Your task to perform on an android device: turn on improve location accuracy Image 0: 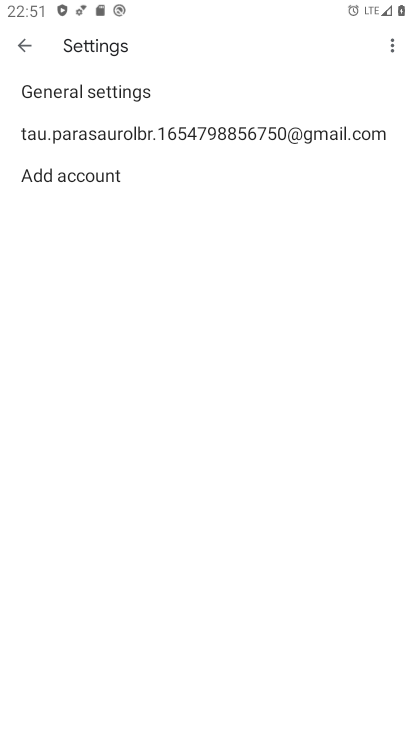
Step 0: click (25, 51)
Your task to perform on an android device: turn on improve location accuracy Image 1: 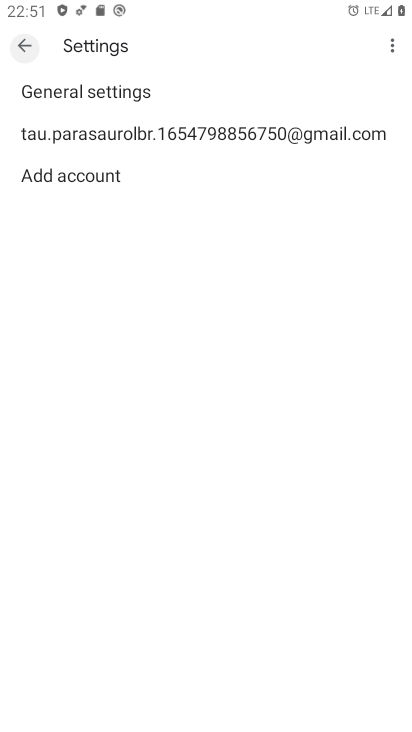
Step 1: click (25, 50)
Your task to perform on an android device: turn on improve location accuracy Image 2: 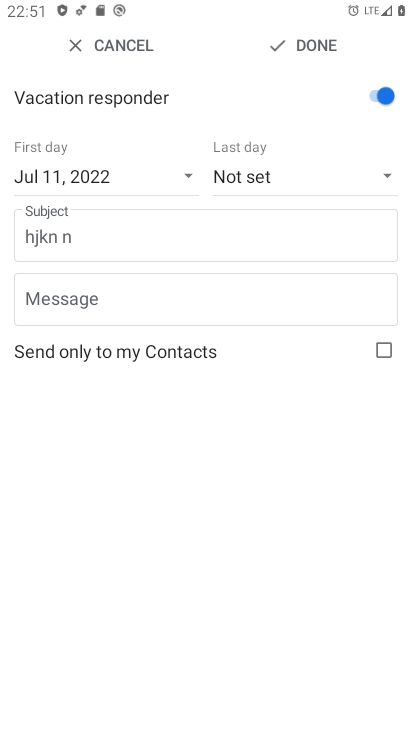
Step 2: press back button
Your task to perform on an android device: turn on improve location accuracy Image 3: 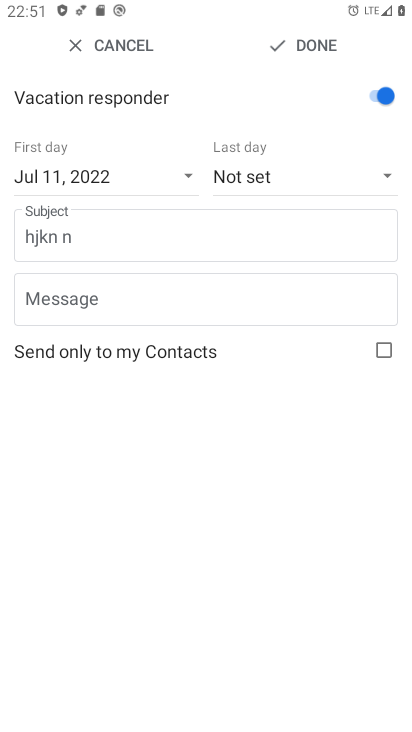
Step 3: press back button
Your task to perform on an android device: turn on improve location accuracy Image 4: 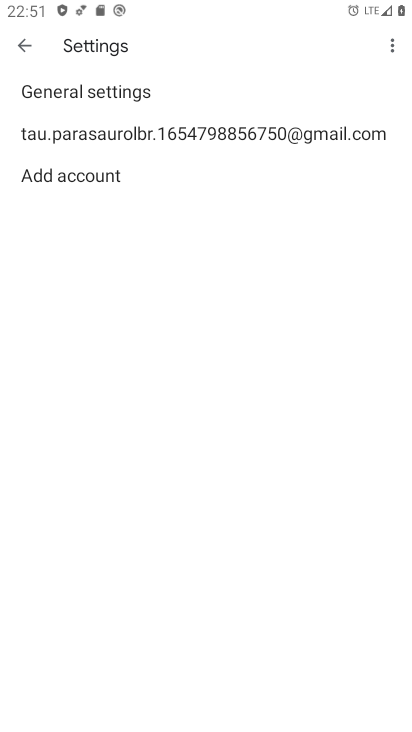
Step 4: press back button
Your task to perform on an android device: turn on improve location accuracy Image 5: 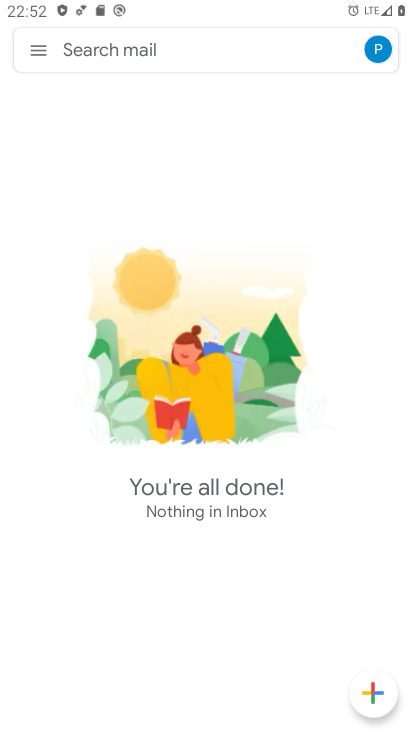
Step 5: press back button
Your task to perform on an android device: turn on improve location accuracy Image 6: 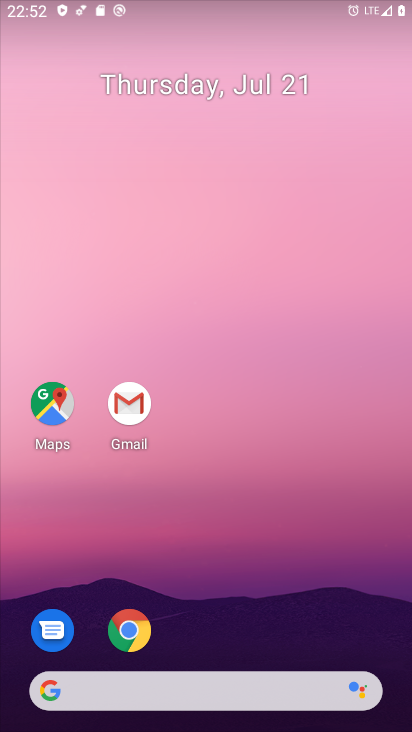
Step 6: drag from (204, 654) to (152, 194)
Your task to perform on an android device: turn on improve location accuracy Image 7: 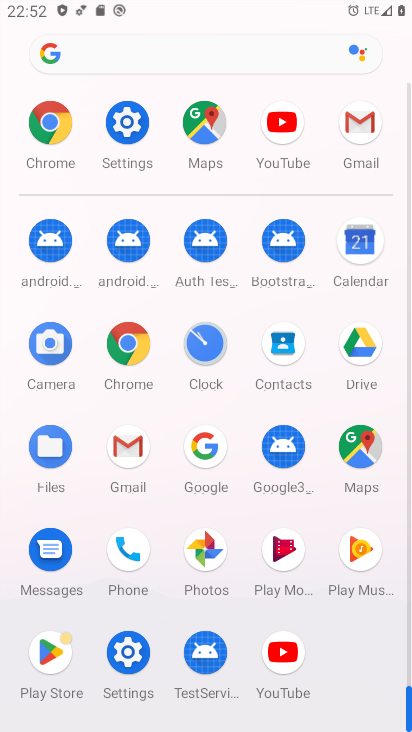
Step 7: click (117, 130)
Your task to perform on an android device: turn on improve location accuracy Image 8: 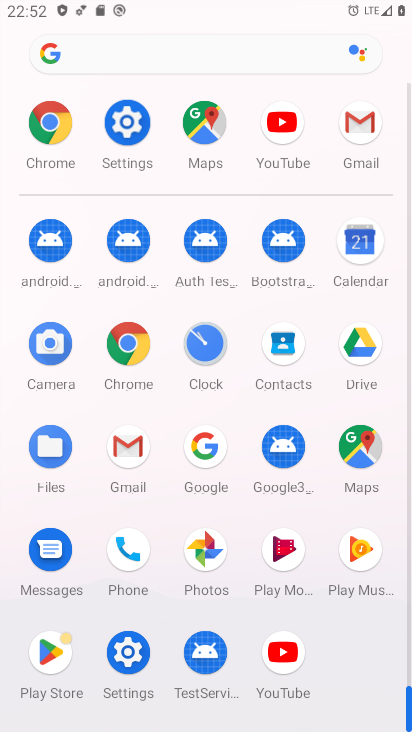
Step 8: click (129, 116)
Your task to perform on an android device: turn on improve location accuracy Image 9: 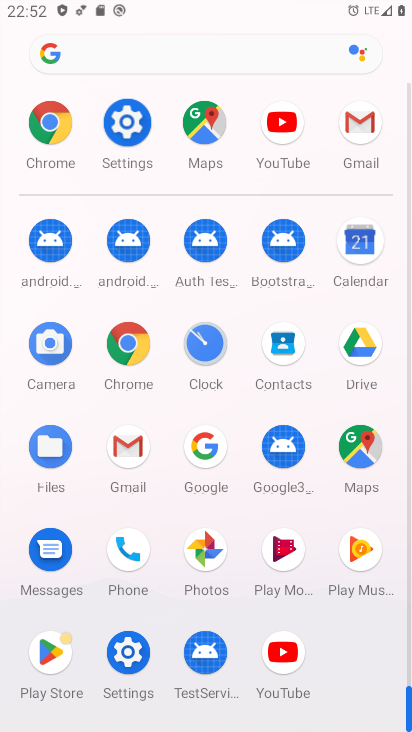
Step 9: click (131, 115)
Your task to perform on an android device: turn on improve location accuracy Image 10: 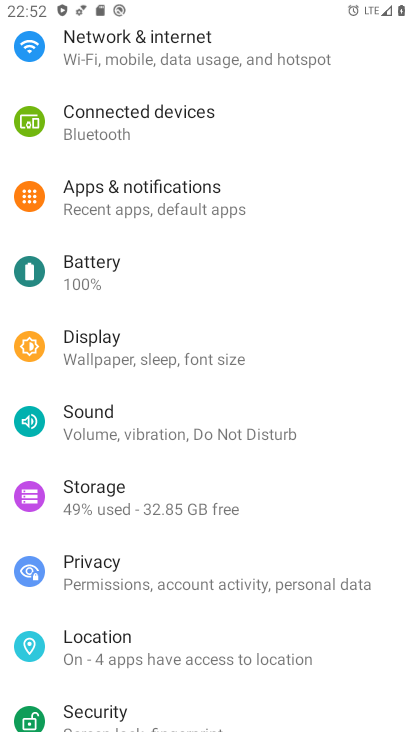
Step 10: click (191, 391)
Your task to perform on an android device: turn on improve location accuracy Image 11: 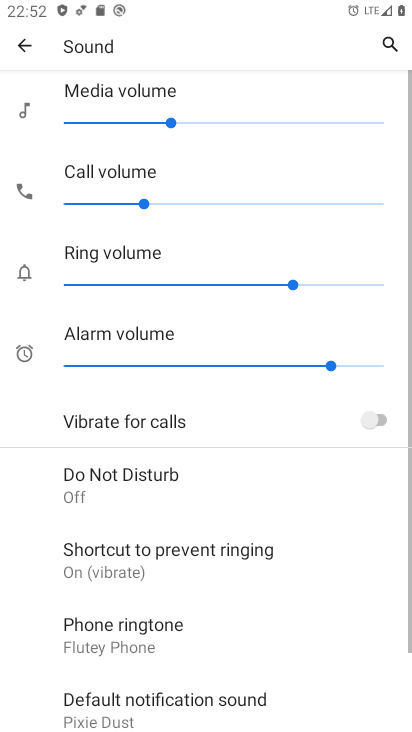
Step 11: click (18, 53)
Your task to perform on an android device: turn on improve location accuracy Image 12: 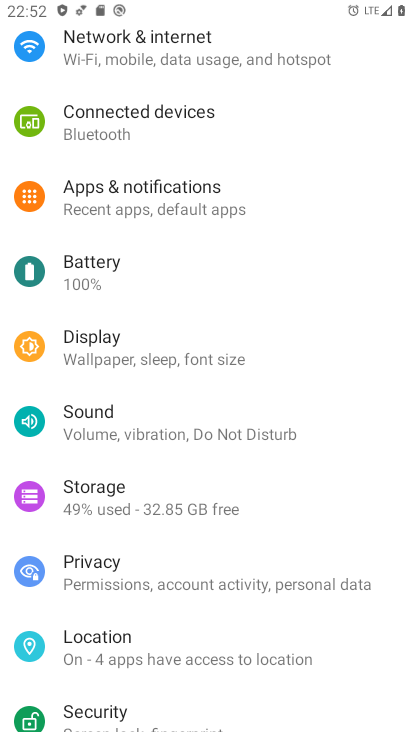
Step 12: drag from (133, 589) to (106, 163)
Your task to perform on an android device: turn on improve location accuracy Image 13: 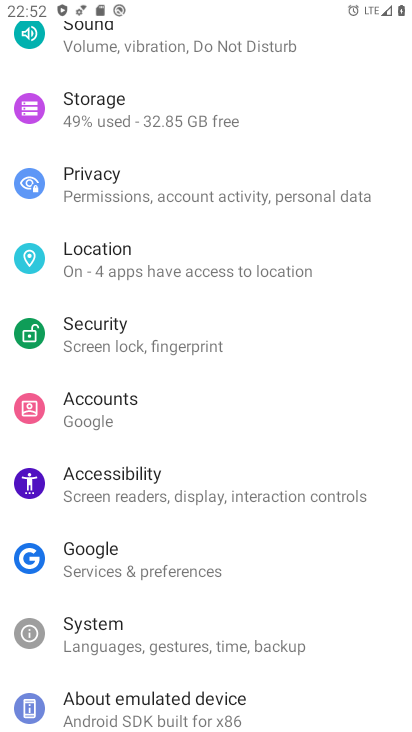
Step 13: drag from (152, 486) to (129, 183)
Your task to perform on an android device: turn on improve location accuracy Image 14: 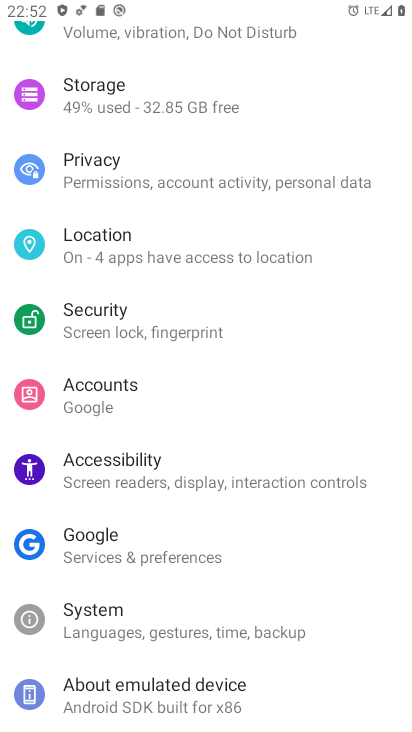
Step 14: click (109, 261)
Your task to perform on an android device: turn on improve location accuracy Image 15: 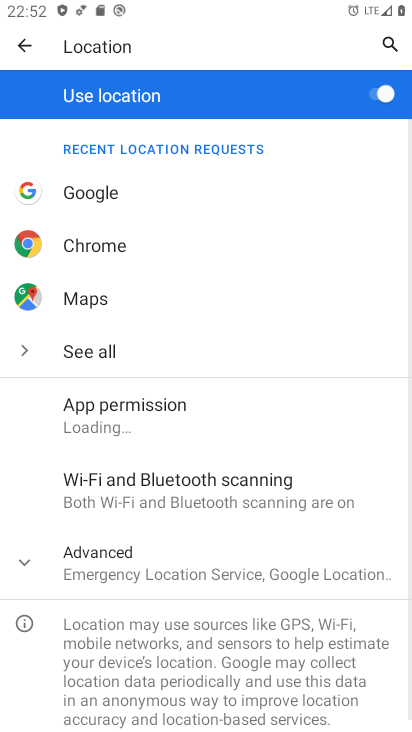
Step 15: drag from (217, 526) to (200, 227)
Your task to perform on an android device: turn on improve location accuracy Image 16: 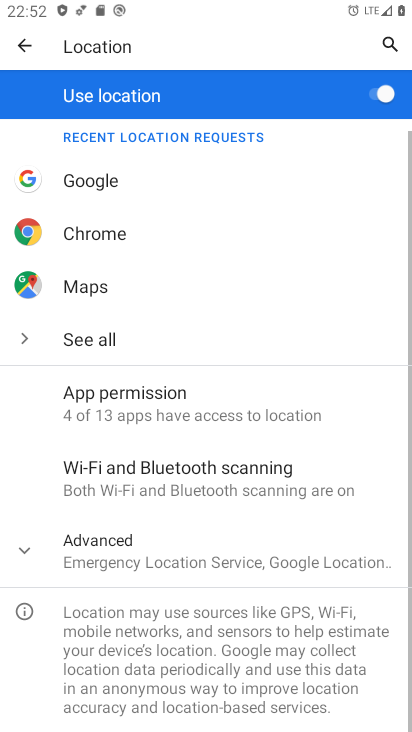
Step 16: click (125, 546)
Your task to perform on an android device: turn on improve location accuracy Image 17: 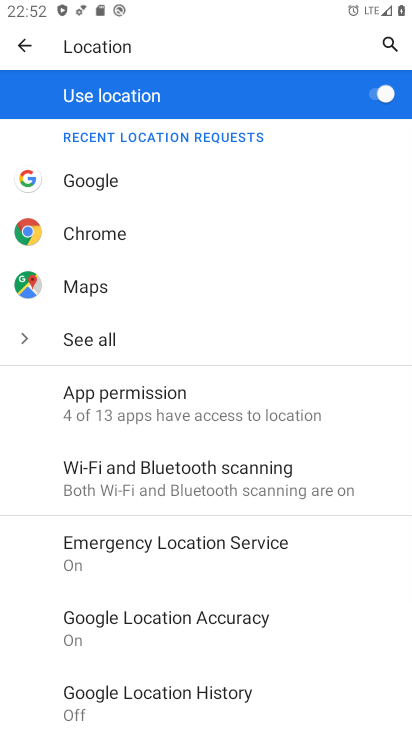
Step 17: drag from (185, 623) to (184, 440)
Your task to perform on an android device: turn on improve location accuracy Image 18: 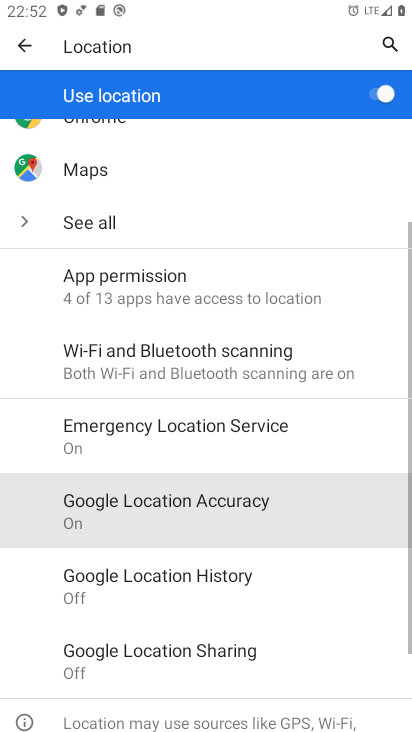
Step 18: drag from (178, 582) to (178, 399)
Your task to perform on an android device: turn on improve location accuracy Image 19: 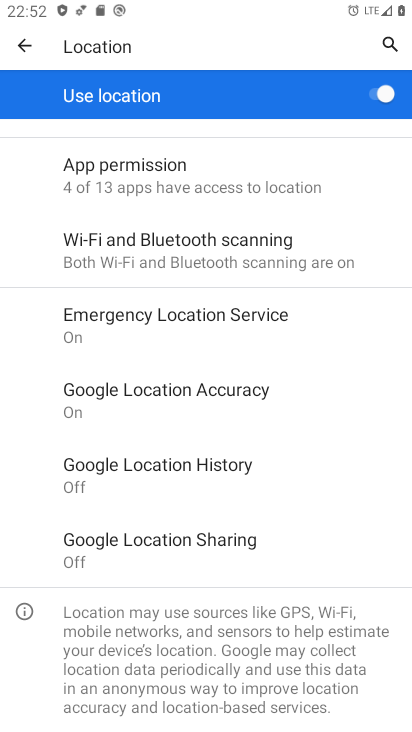
Step 19: click (156, 395)
Your task to perform on an android device: turn on improve location accuracy Image 20: 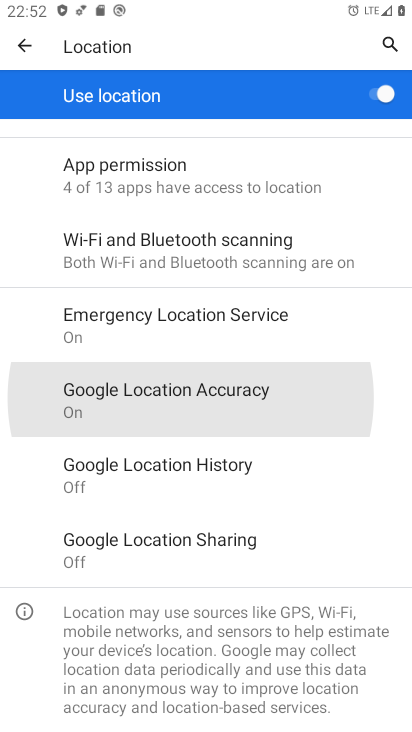
Step 20: click (156, 395)
Your task to perform on an android device: turn on improve location accuracy Image 21: 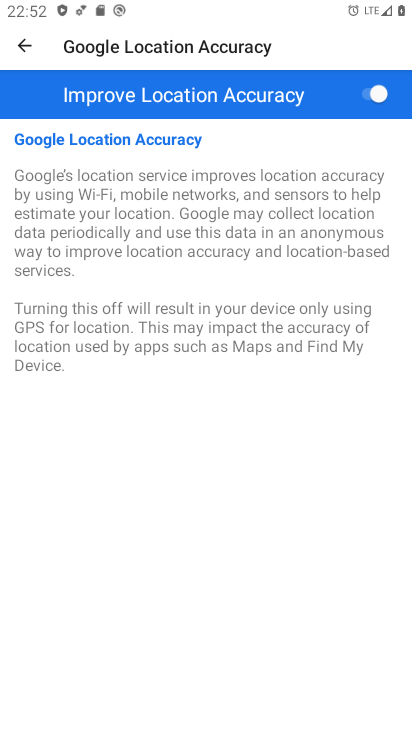
Step 21: task complete